Your task to perform on an android device: Open ESPN.com Image 0: 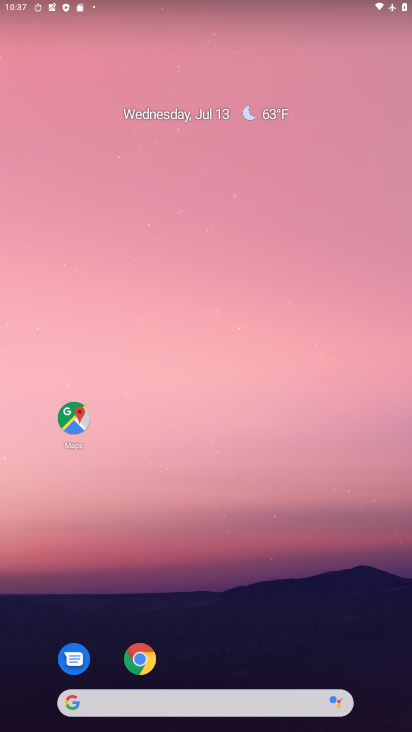
Step 0: drag from (292, 633) to (267, 138)
Your task to perform on an android device: Open ESPN.com Image 1: 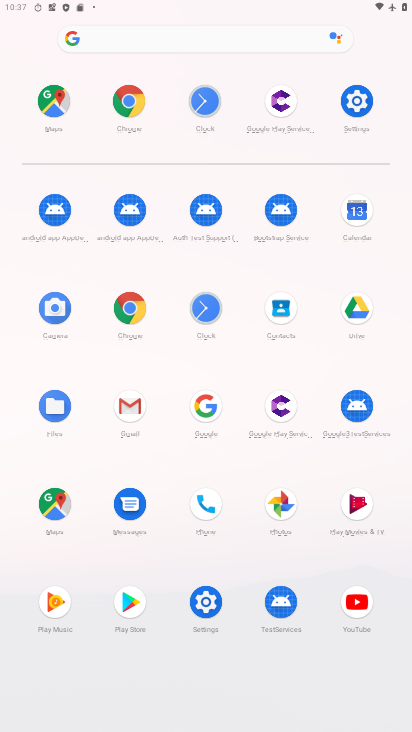
Step 1: click (129, 102)
Your task to perform on an android device: Open ESPN.com Image 2: 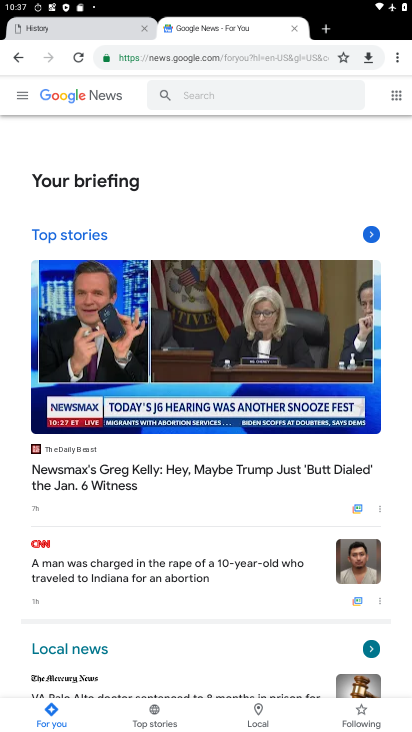
Step 2: click (200, 50)
Your task to perform on an android device: Open ESPN.com Image 3: 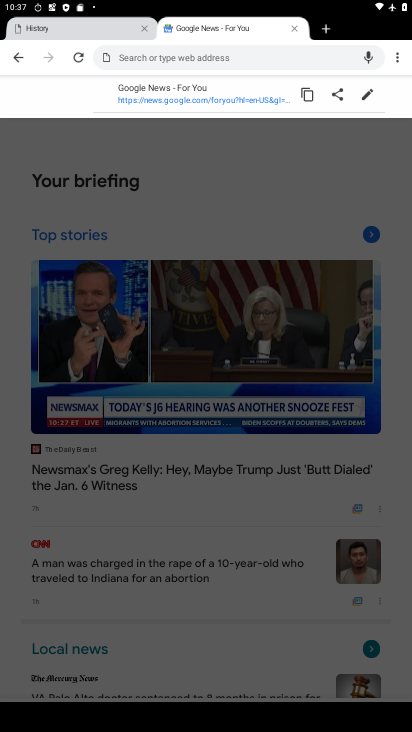
Step 3: type "espn.com"
Your task to perform on an android device: Open ESPN.com Image 4: 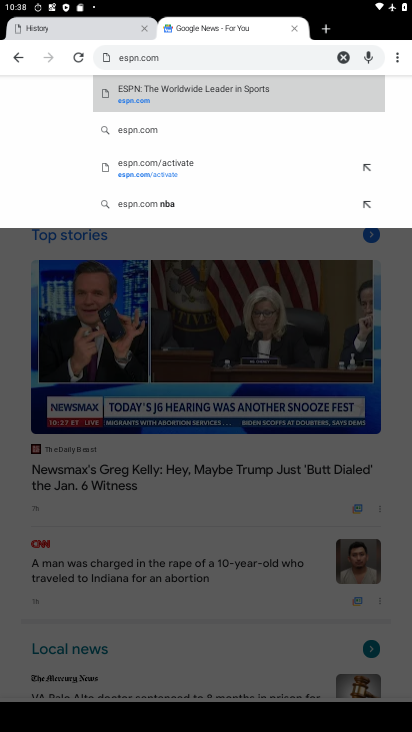
Step 4: click (134, 102)
Your task to perform on an android device: Open ESPN.com Image 5: 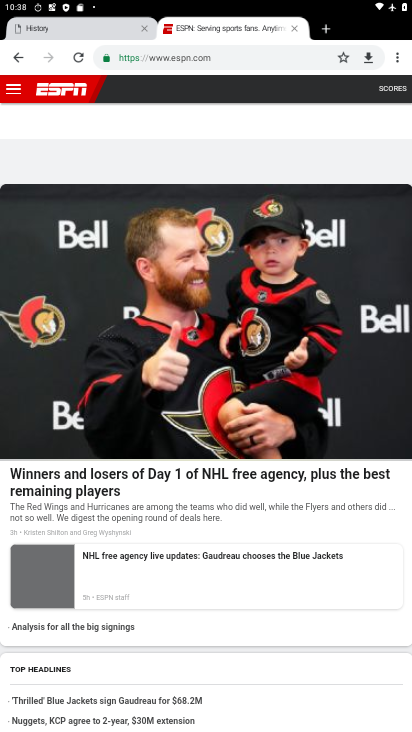
Step 5: task complete